Your task to perform on an android device: Go to Yahoo.com Image 0: 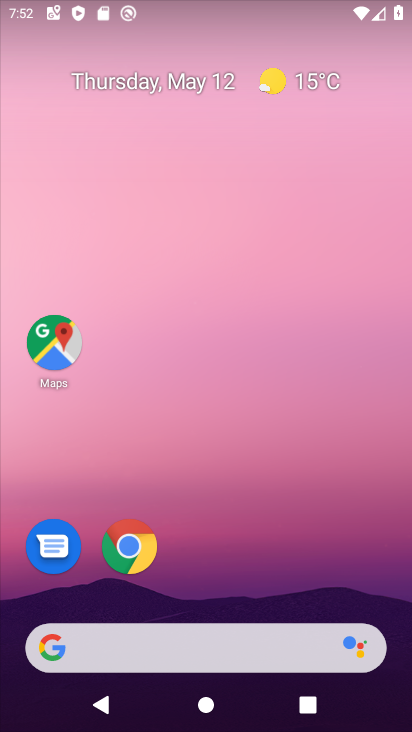
Step 0: click (131, 551)
Your task to perform on an android device: Go to Yahoo.com Image 1: 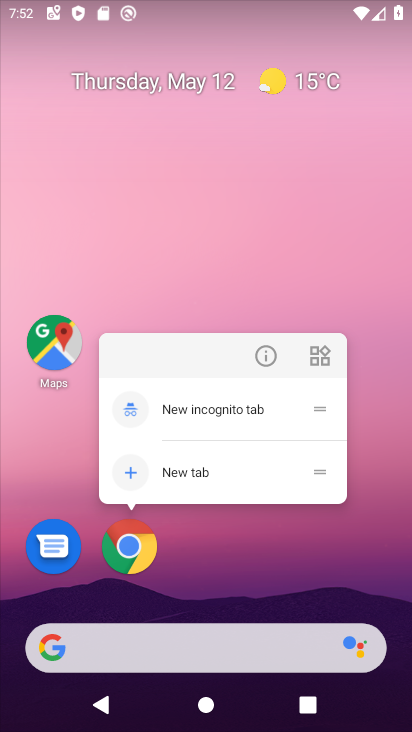
Step 1: click (145, 558)
Your task to perform on an android device: Go to Yahoo.com Image 2: 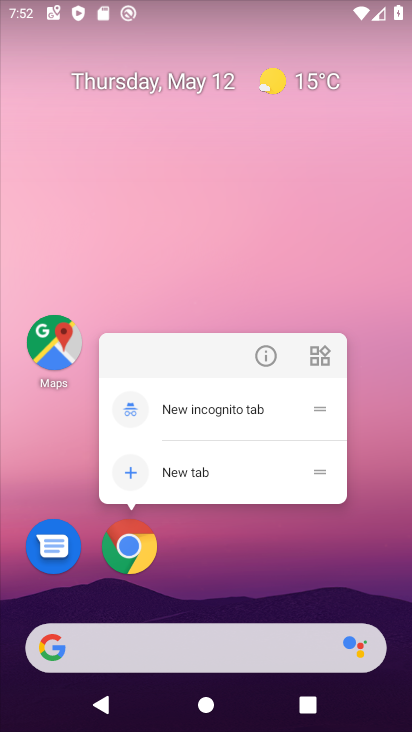
Step 2: click (138, 554)
Your task to perform on an android device: Go to Yahoo.com Image 3: 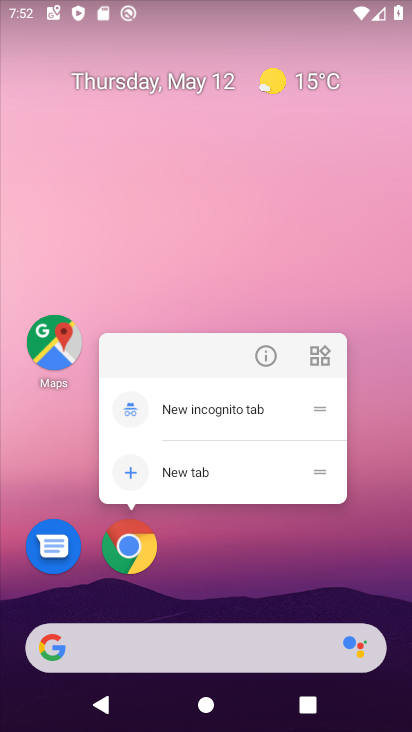
Step 3: click (132, 548)
Your task to perform on an android device: Go to Yahoo.com Image 4: 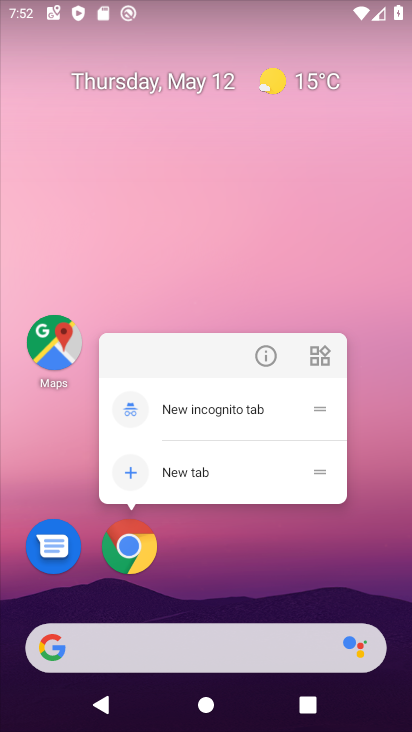
Step 4: click (126, 546)
Your task to perform on an android device: Go to Yahoo.com Image 5: 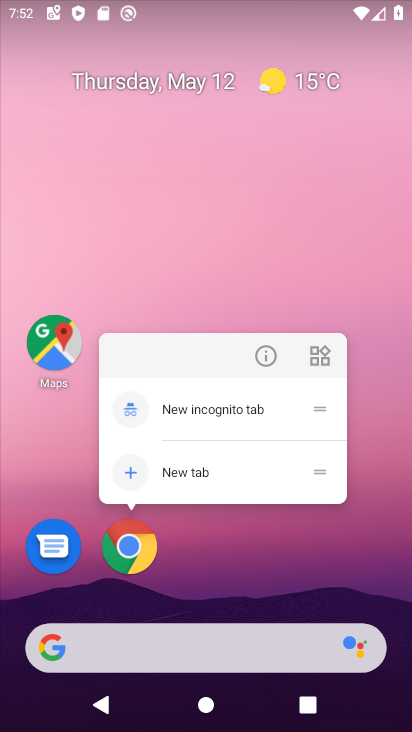
Step 5: click (141, 550)
Your task to perform on an android device: Go to Yahoo.com Image 6: 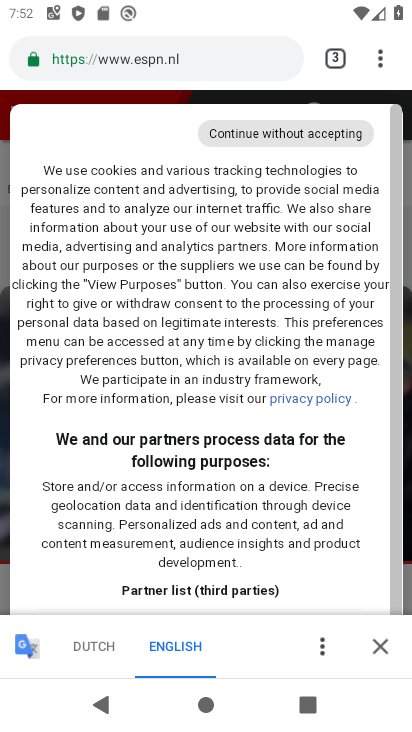
Step 6: drag from (379, 61) to (267, 111)
Your task to perform on an android device: Go to Yahoo.com Image 7: 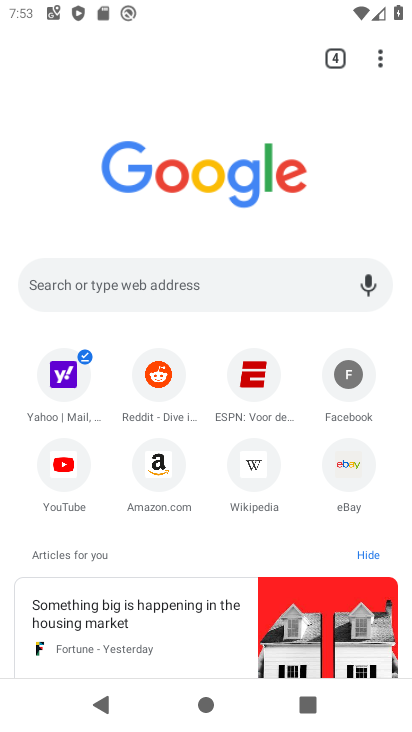
Step 7: click (67, 385)
Your task to perform on an android device: Go to Yahoo.com Image 8: 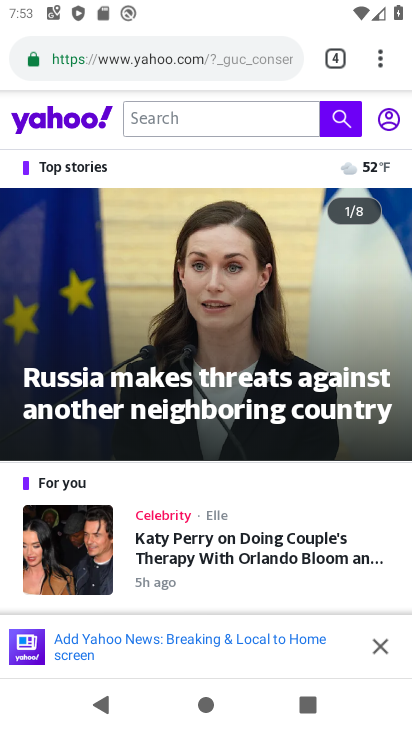
Step 8: task complete